Your task to perform on an android device: create a new album in the google photos Image 0: 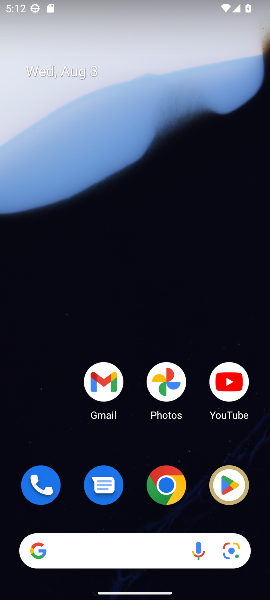
Step 0: drag from (126, 511) to (83, 0)
Your task to perform on an android device: create a new album in the google photos Image 1: 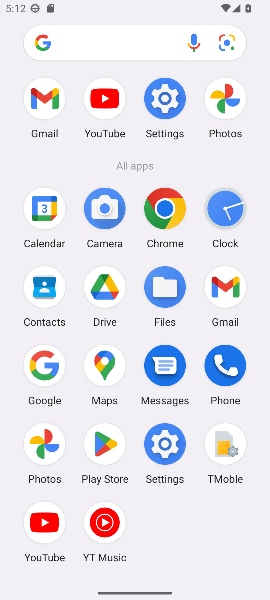
Step 1: click (45, 459)
Your task to perform on an android device: create a new album in the google photos Image 2: 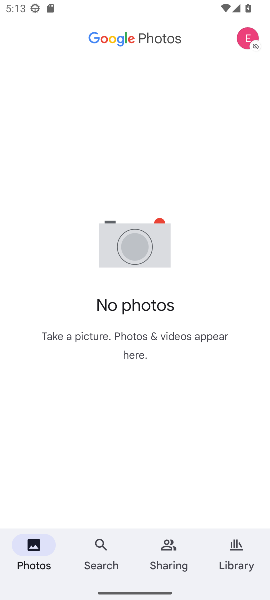
Step 2: click (235, 545)
Your task to perform on an android device: create a new album in the google photos Image 3: 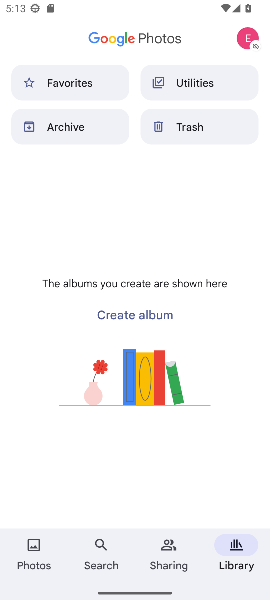
Step 3: click (149, 315)
Your task to perform on an android device: create a new album in the google photos Image 4: 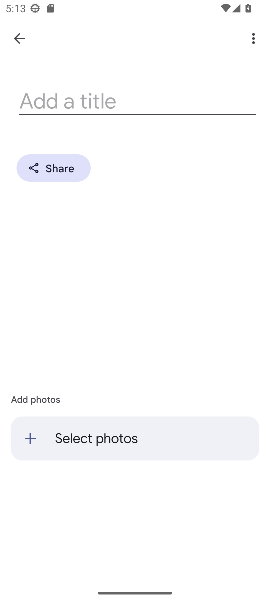
Step 4: click (34, 435)
Your task to perform on an android device: create a new album in the google photos Image 5: 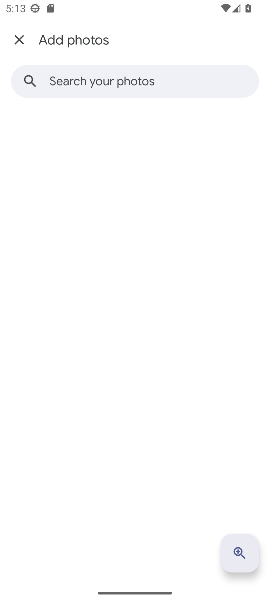
Step 5: task complete